Your task to perform on an android device: Search for pizza restaurants on Maps Image 0: 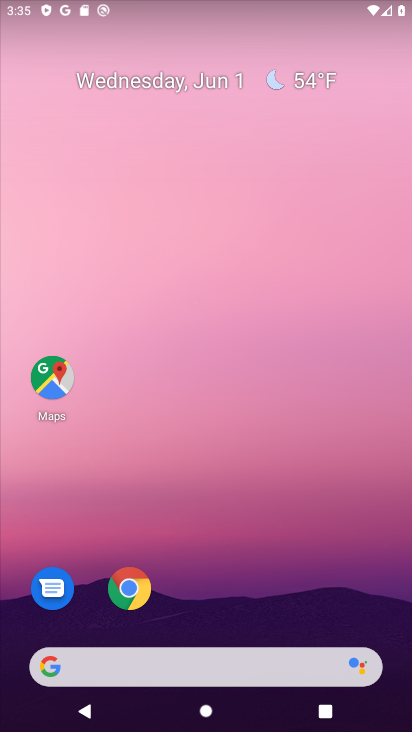
Step 0: click (48, 371)
Your task to perform on an android device: Search for pizza restaurants on Maps Image 1: 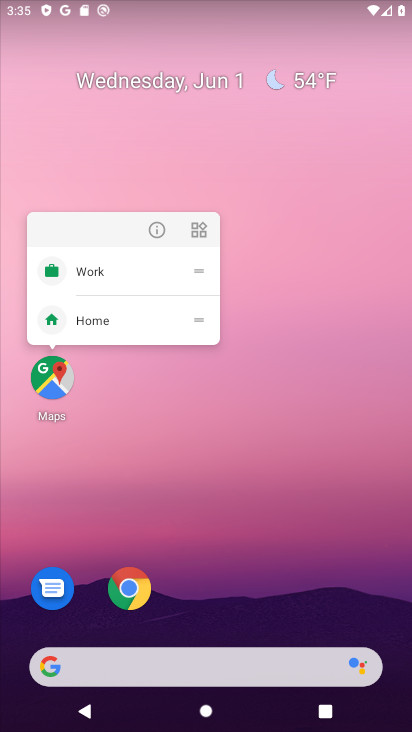
Step 1: click (76, 384)
Your task to perform on an android device: Search for pizza restaurants on Maps Image 2: 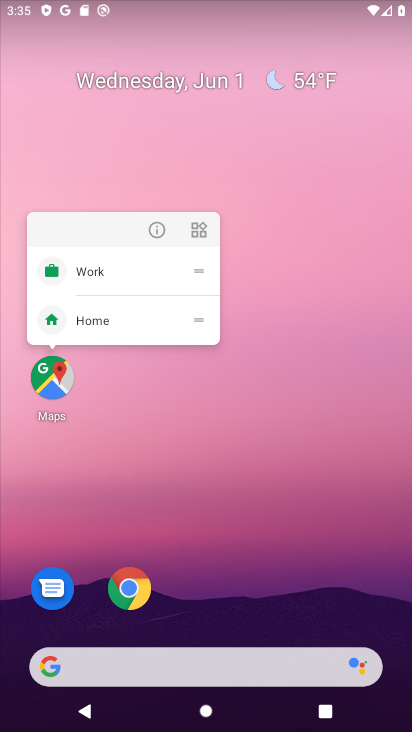
Step 2: click (53, 383)
Your task to perform on an android device: Search for pizza restaurants on Maps Image 3: 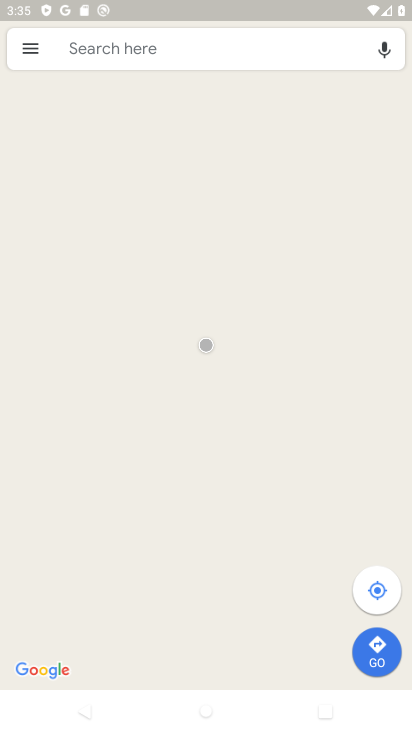
Step 3: click (138, 51)
Your task to perform on an android device: Search for pizza restaurants on Maps Image 4: 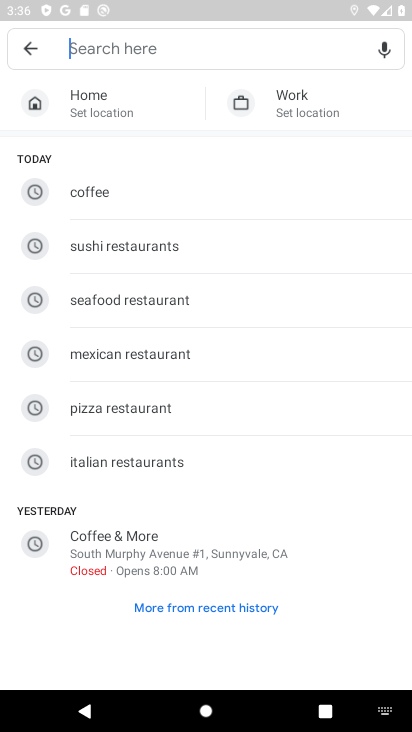
Step 4: type "Pizza restaurants"
Your task to perform on an android device: Search for pizza restaurants on Maps Image 5: 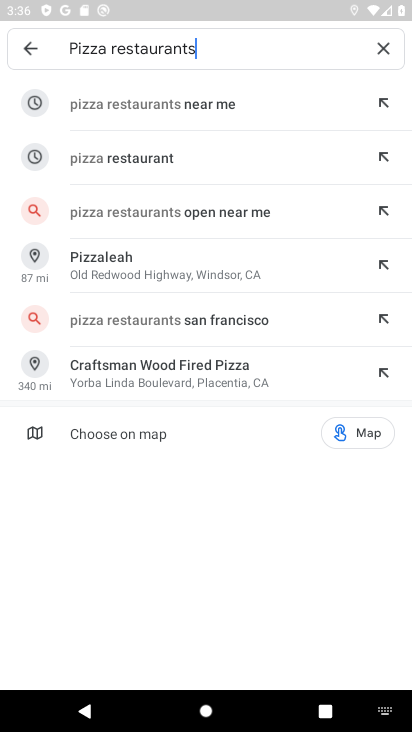
Step 5: click (175, 156)
Your task to perform on an android device: Search for pizza restaurants on Maps Image 6: 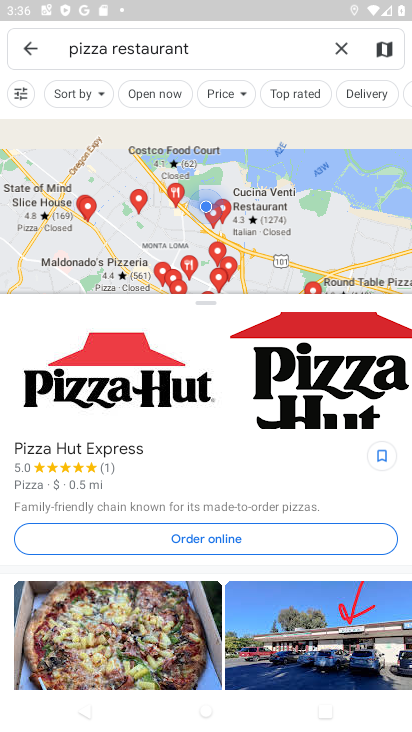
Step 6: task complete